Your task to perform on an android device: clear all cookies in the chrome app Image 0: 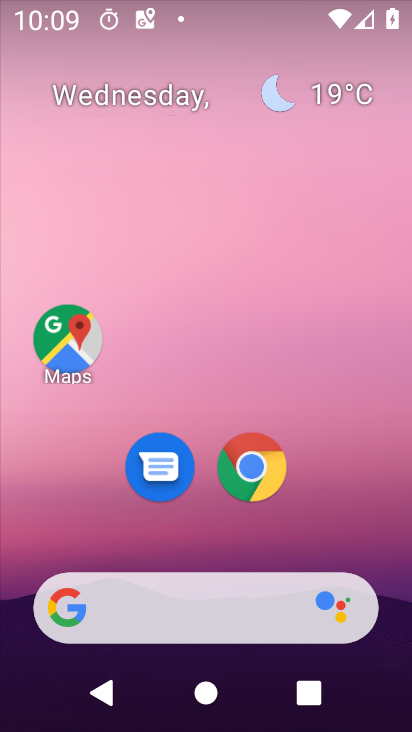
Step 0: click (257, 481)
Your task to perform on an android device: clear all cookies in the chrome app Image 1: 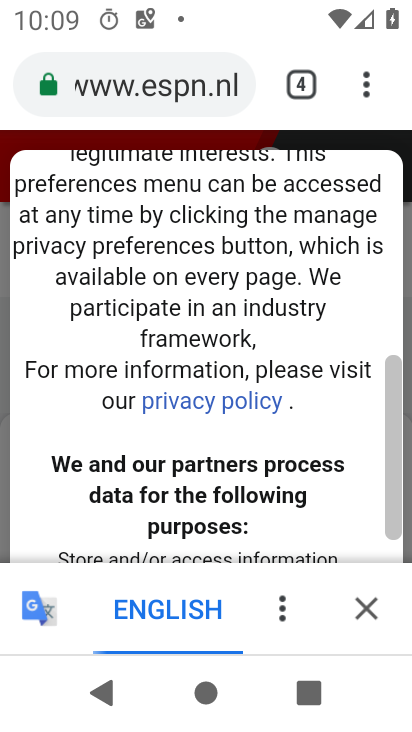
Step 1: click (362, 85)
Your task to perform on an android device: clear all cookies in the chrome app Image 2: 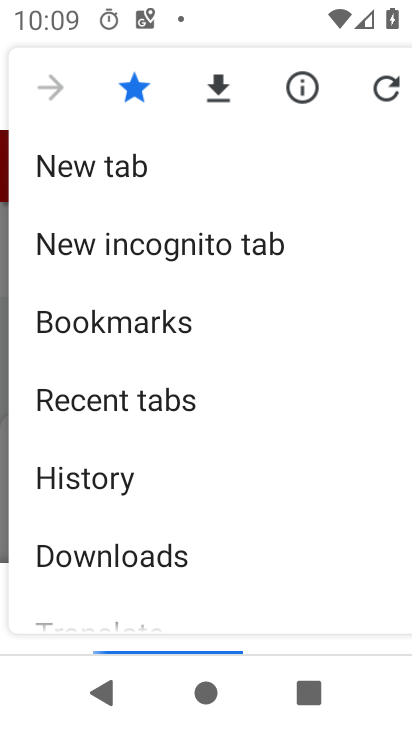
Step 2: click (170, 475)
Your task to perform on an android device: clear all cookies in the chrome app Image 3: 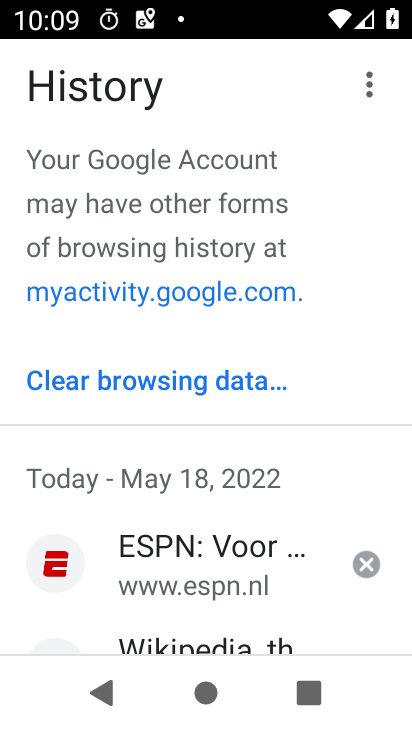
Step 3: click (124, 378)
Your task to perform on an android device: clear all cookies in the chrome app Image 4: 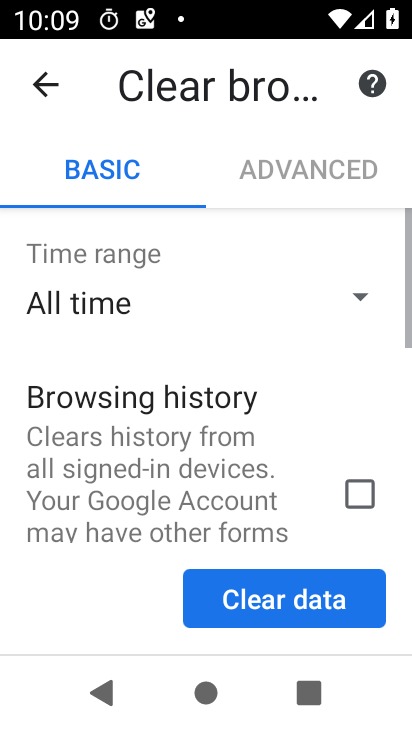
Step 4: click (298, 596)
Your task to perform on an android device: clear all cookies in the chrome app Image 5: 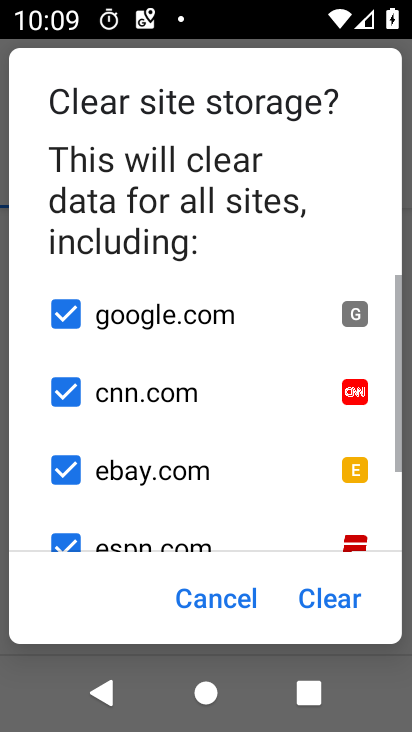
Step 5: click (328, 598)
Your task to perform on an android device: clear all cookies in the chrome app Image 6: 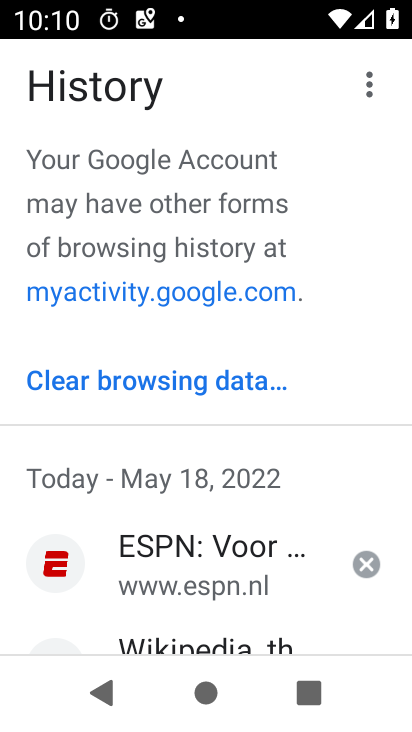
Step 6: task complete